Your task to perform on an android device: Go to location settings Image 0: 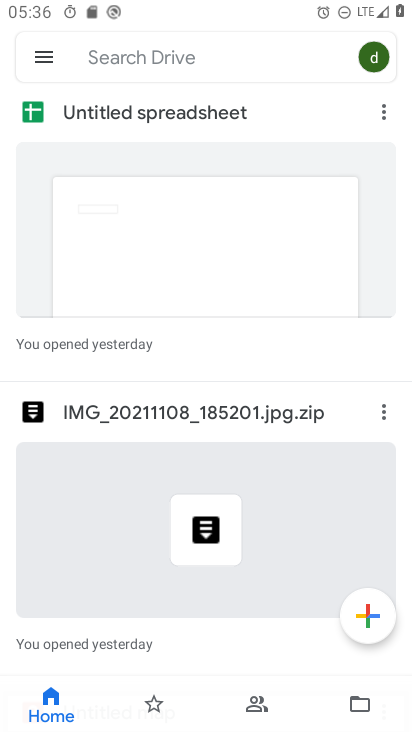
Step 0: press home button
Your task to perform on an android device: Go to location settings Image 1: 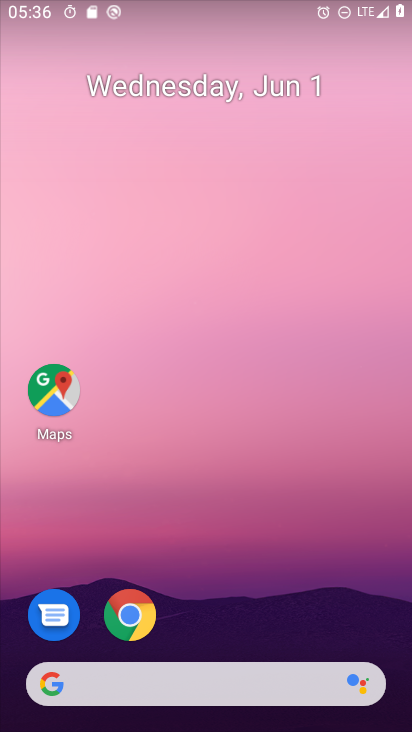
Step 1: drag from (229, 674) to (166, 10)
Your task to perform on an android device: Go to location settings Image 2: 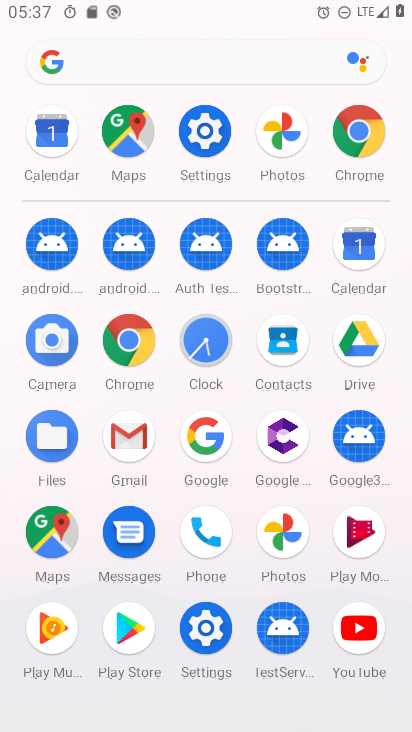
Step 2: click (193, 131)
Your task to perform on an android device: Go to location settings Image 3: 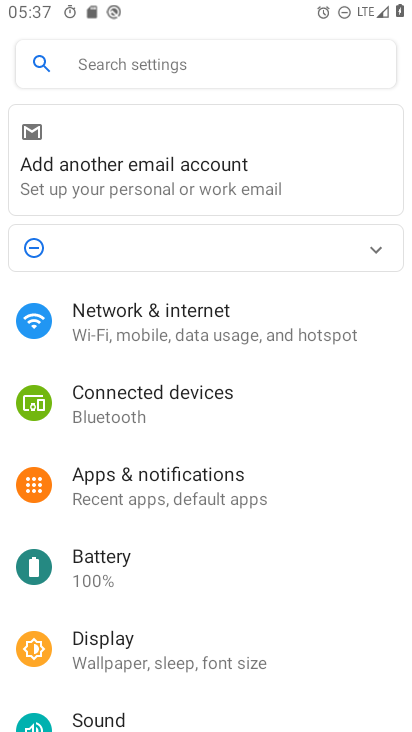
Step 3: drag from (165, 699) to (193, 316)
Your task to perform on an android device: Go to location settings Image 4: 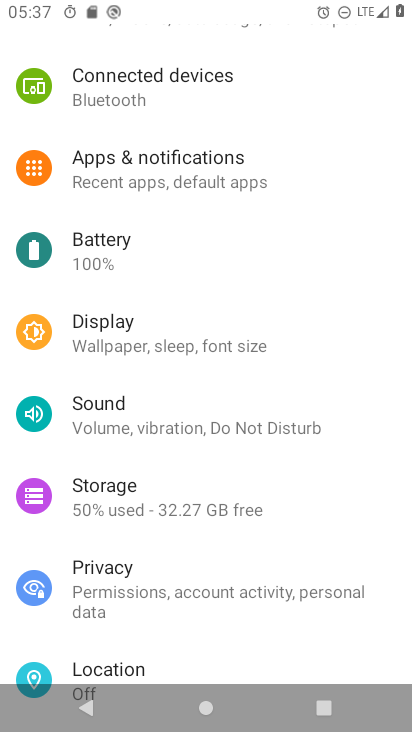
Step 4: click (118, 665)
Your task to perform on an android device: Go to location settings Image 5: 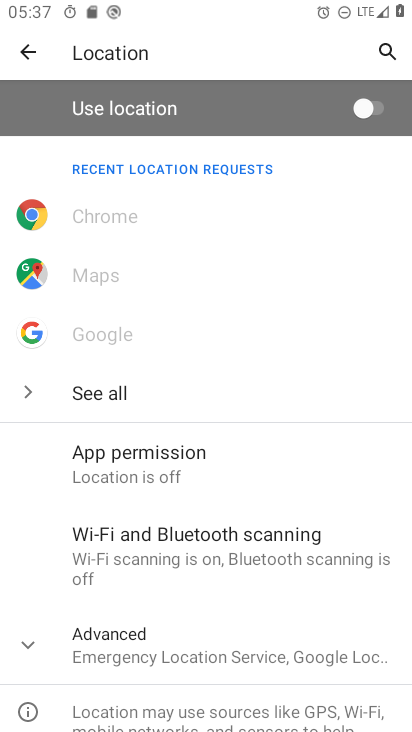
Step 5: task complete